Your task to perform on an android device: Search for "alienware aurora" on walmart.com, select the first entry, add it to the cart, then select checkout. Image 0: 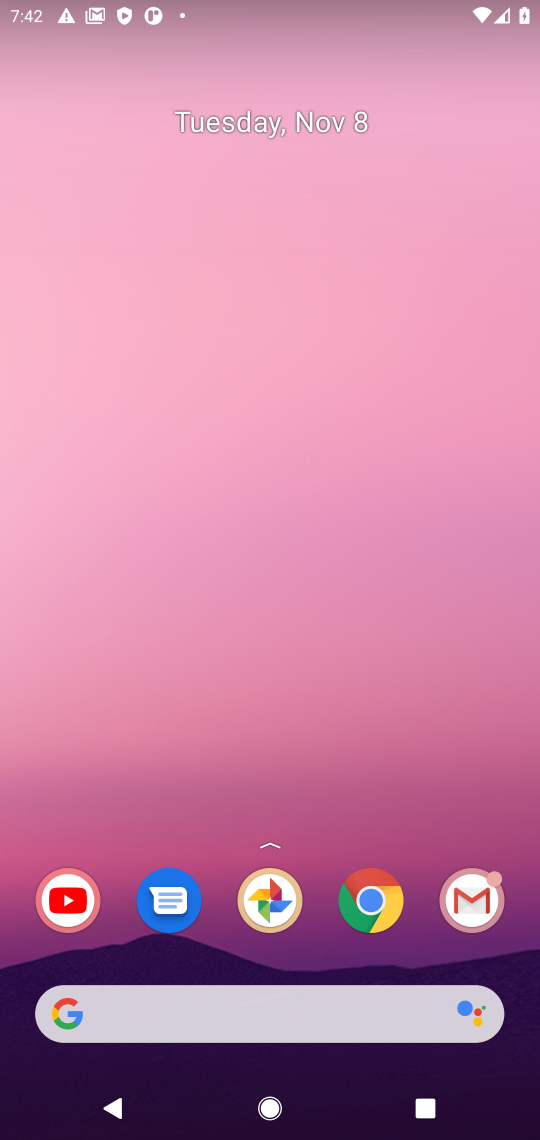
Step 0: click (382, 915)
Your task to perform on an android device: Search for "alienware aurora" on walmart.com, select the first entry, add it to the cart, then select checkout. Image 1: 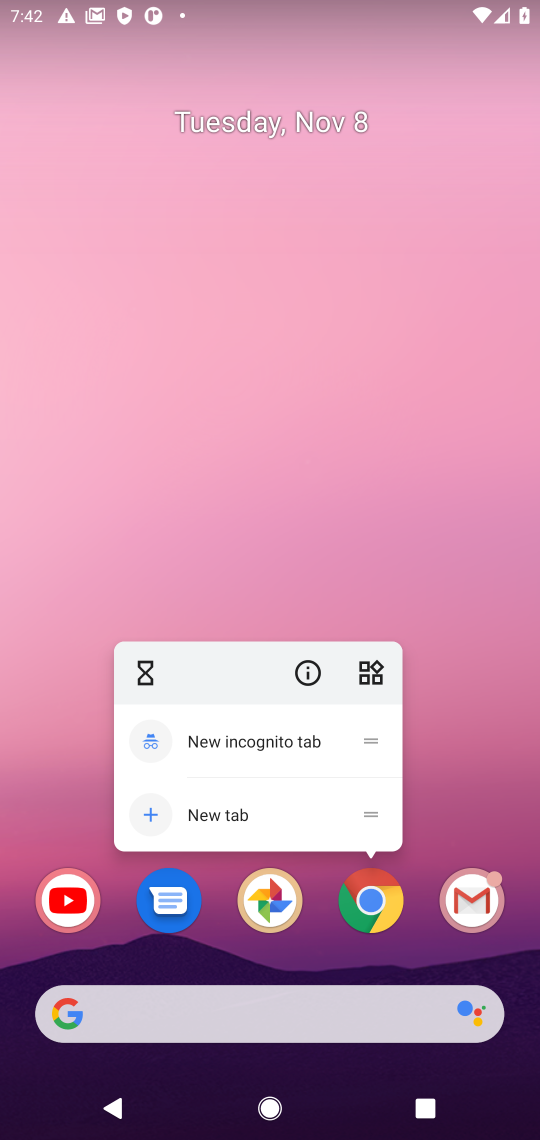
Step 1: click (383, 913)
Your task to perform on an android device: Search for "alienware aurora" on walmart.com, select the first entry, add it to the cart, then select checkout. Image 2: 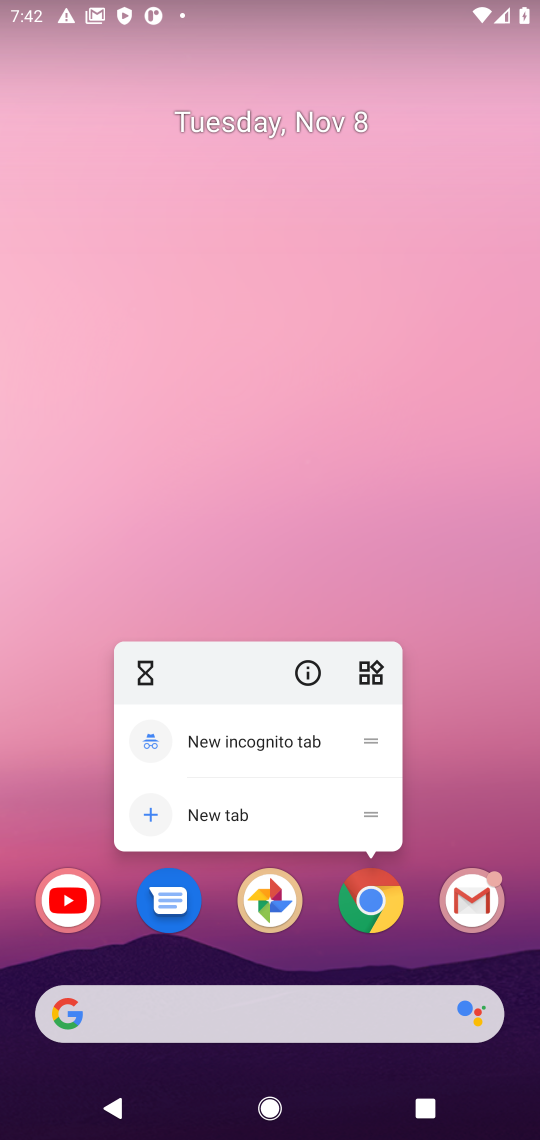
Step 2: click (383, 913)
Your task to perform on an android device: Search for "alienware aurora" on walmart.com, select the first entry, add it to the cart, then select checkout. Image 3: 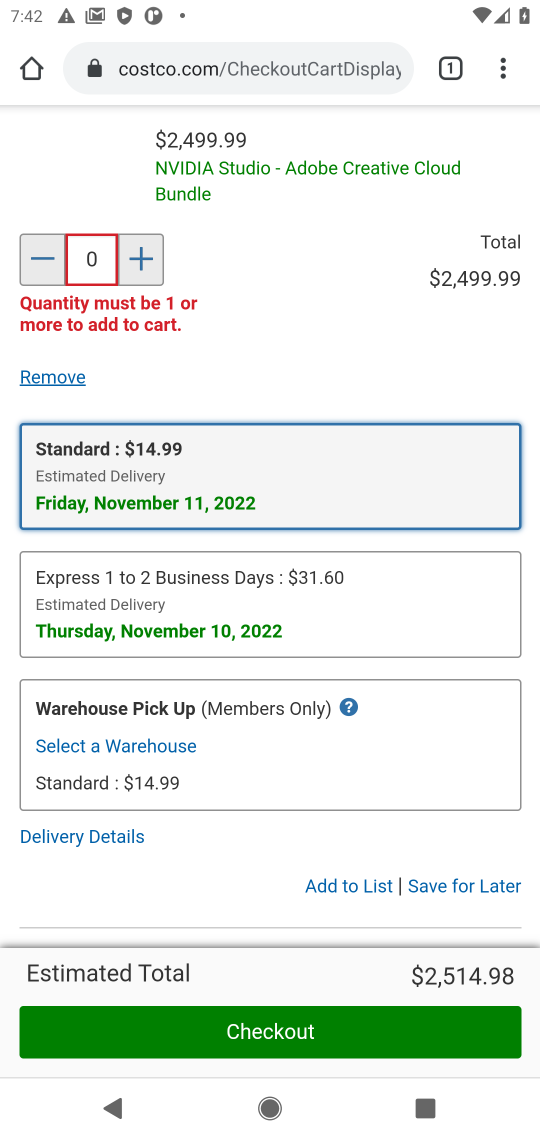
Step 3: click (143, 68)
Your task to perform on an android device: Search for "alienware aurora" on walmart.com, select the first entry, add it to the cart, then select checkout. Image 4: 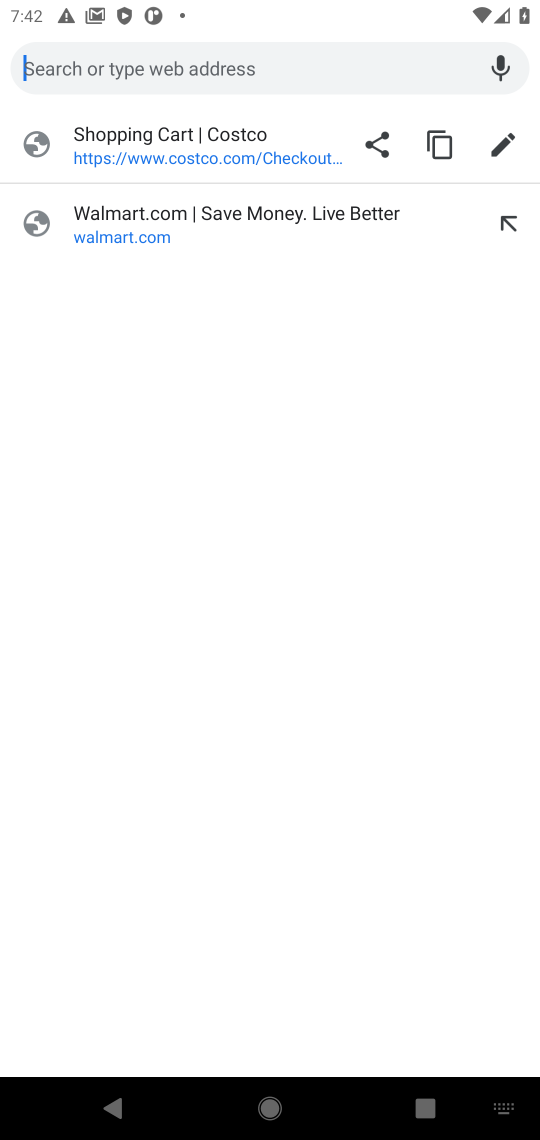
Step 4: type "walmart"
Your task to perform on an android device: Search for "alienware aurora" on walmart.com, select the first entry, add it to the cart, then select checkout. Image 5: 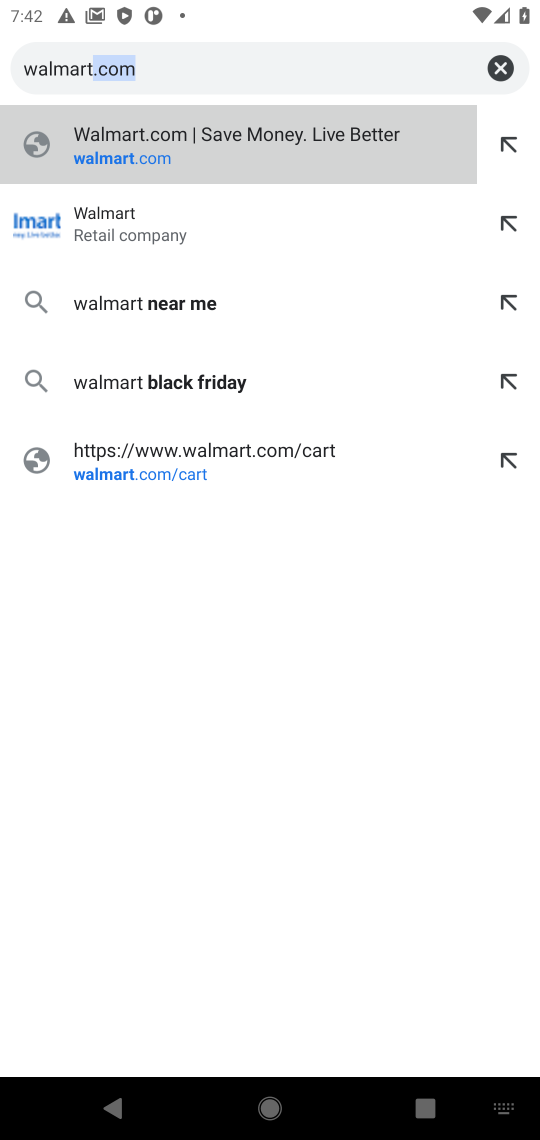
Step 5: type ""
Your task to perform on an android device: Search for "alienware aurora" on walmart.com, select the first entry, add it to the cart, then select checkout. Image 6: 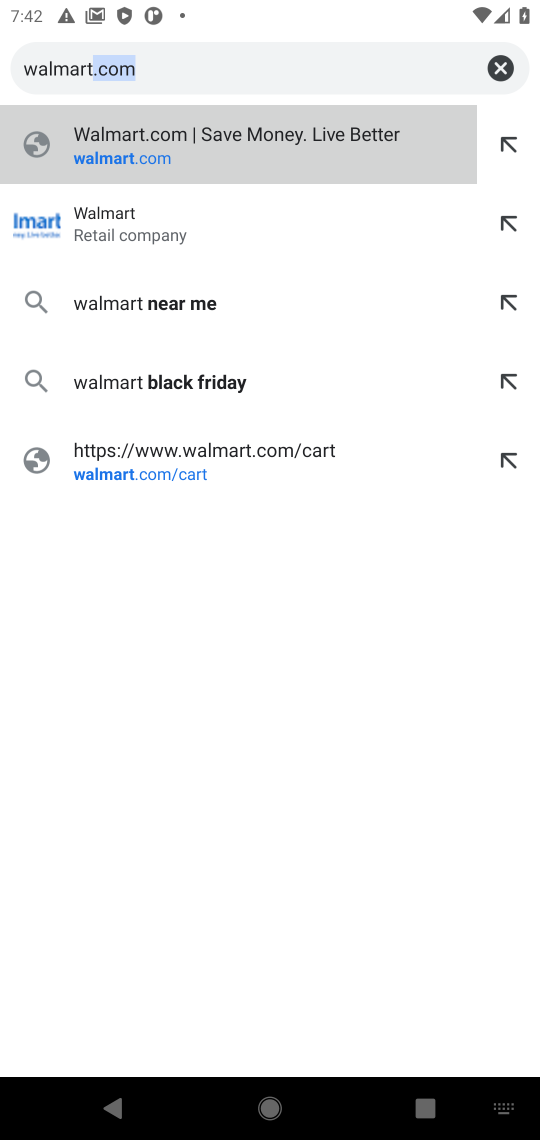
Step 6: click (135, 241)
Your task to perform on an android device: Search for "alienware aurora" on walmart.com, select the first entry, add it to the cart, then select checkout. Image 7: 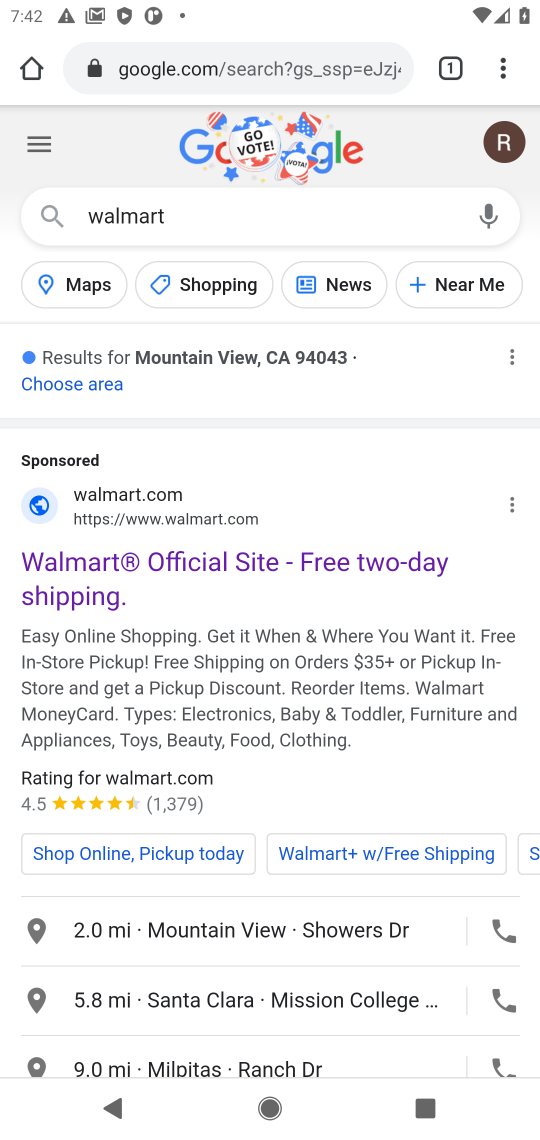
Step 7: drag from (210, 778) to (292, 21)
Your task to perform on an android device: Search for "alienware aurora" on walmart.com, select the first entry, add it to the cart, then select checkout. Image 8: 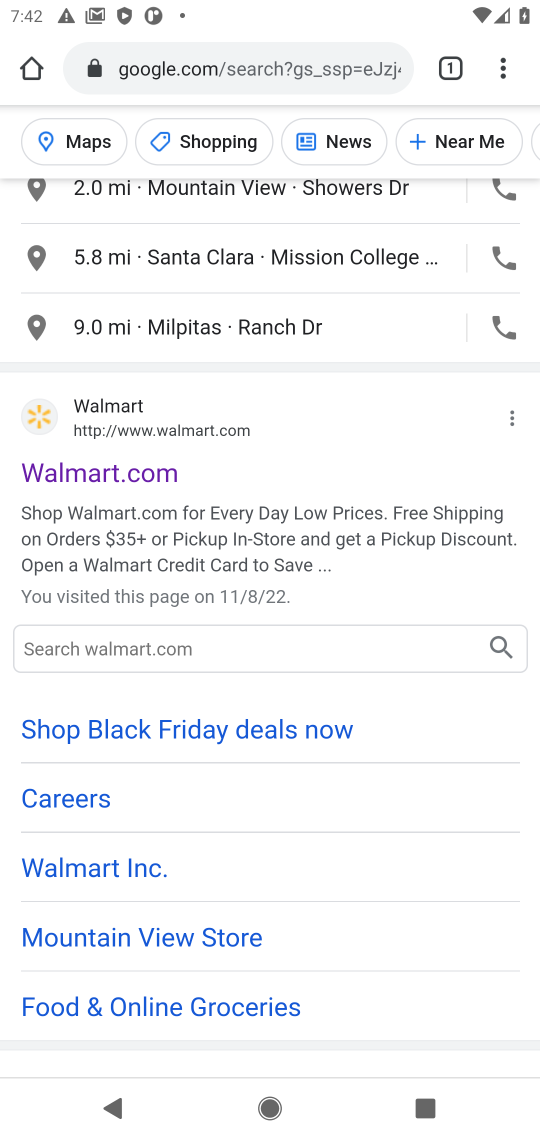
Step 8: click (86, 476)
Your task to perform on an android device: Search for "alienware aurora" on walmart.com, select the first entry, add it to the cart, then select checkout. Image 9: 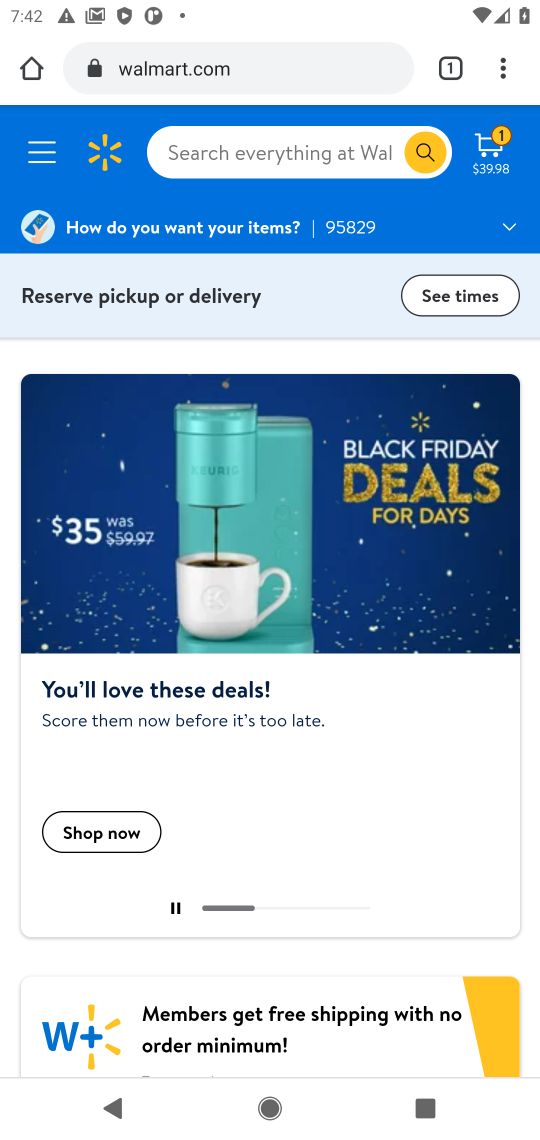
Step 9: click (226, 154)
Your task to perform on an android device: Search for "alienware aurora" on walmart.com, select the first entry, add it to the cart, then select checkout. Image 10: 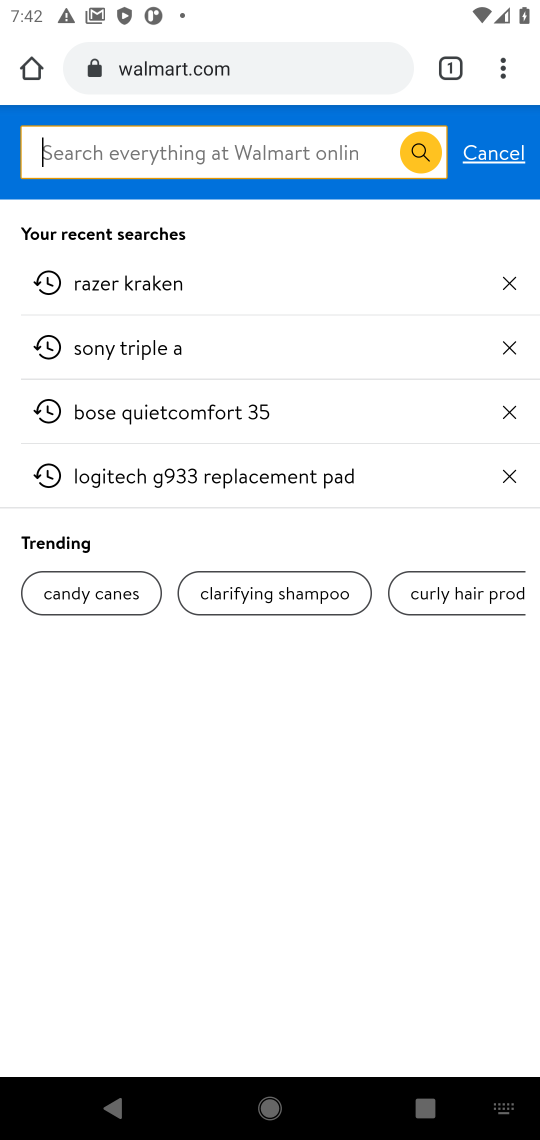
Step 10: type "alienware auror"
Your task to perform on an android device: Search for "alienware aurora" on walmart.com, select the first entry, add it to the cart, then select checkout. Image 11: 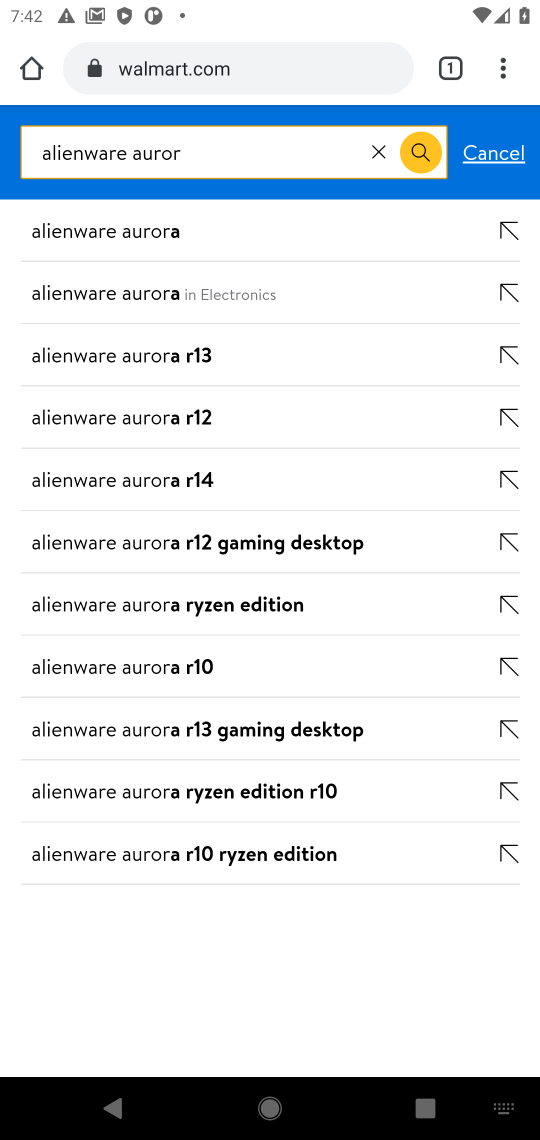
Step 11: type "alien aurora"
Your task to perform on an android device: Search for "alienware aurora" on walmart.com, select the first entry, add it to the cart, then select checkout. Image 12: 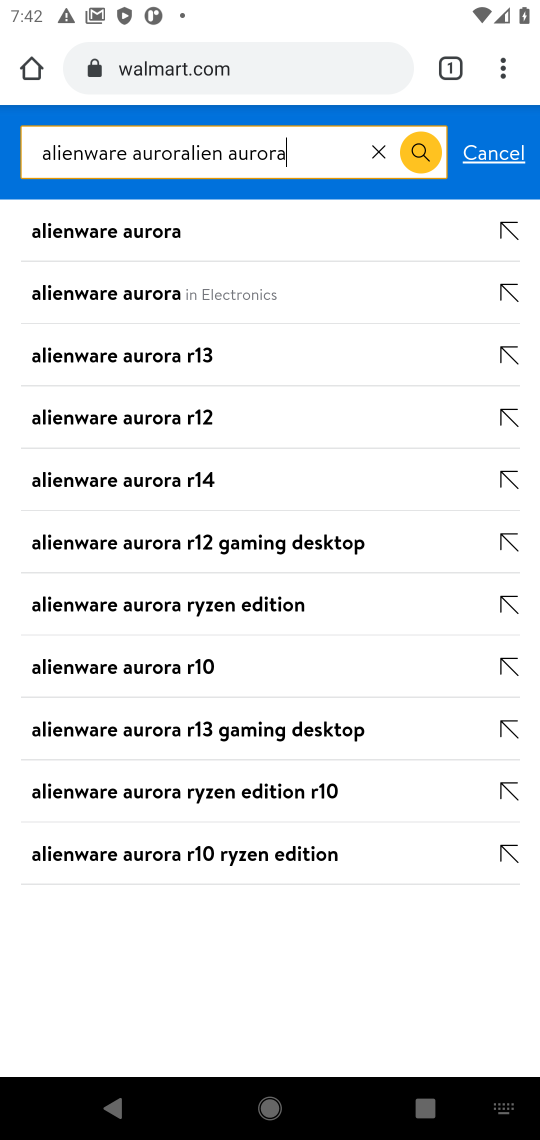
Step 12: type ""
Your task to perform on an android device: Search for "alienware aurora" on walmart.com, select the first entry, add it to the cart, then select checkout. Image 13: 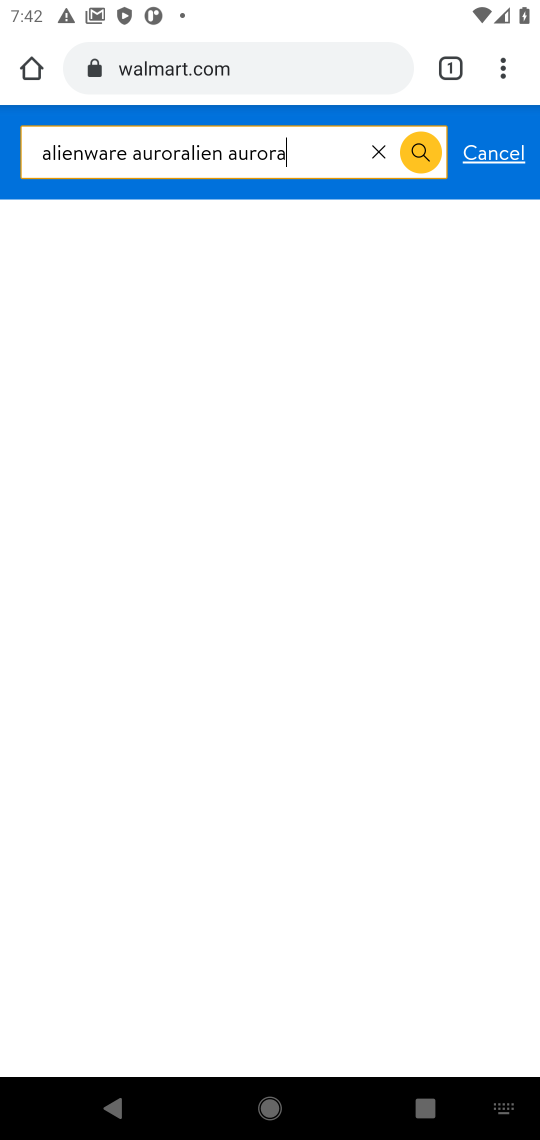
Step 13: click (391, 144)
Your task to perform on an android device: Search for "alienware aurora" on walmart.com, select the first entry, add it to the cart, then select checkout. Image 14: 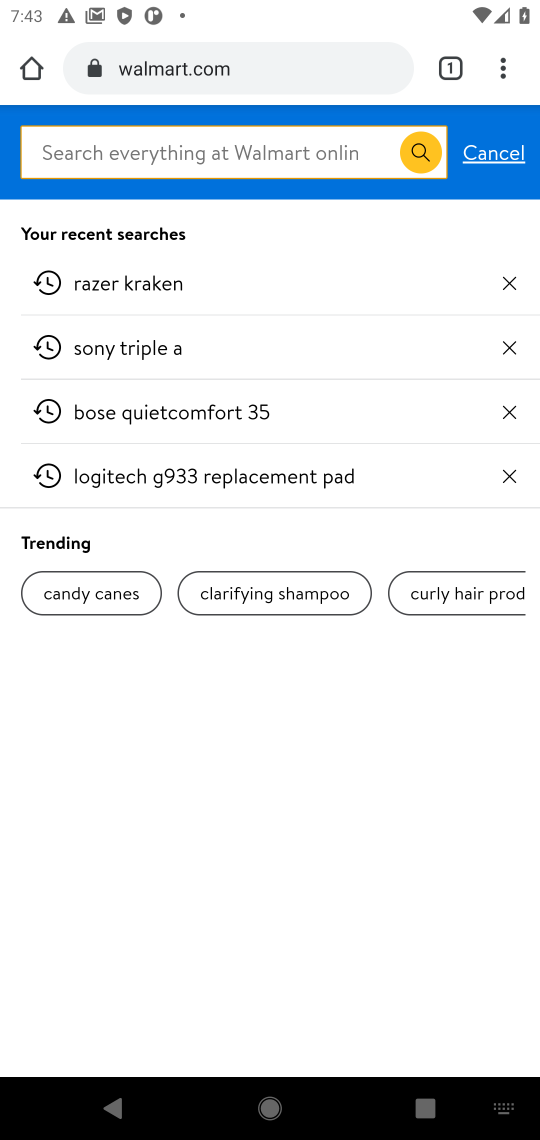
Step 14: type "alienware aurora"
Your task to perform on an android device: Search for "alienware aurora" on walmart.com, select the first entry, add it to the cart, then select checkout. Image 15: 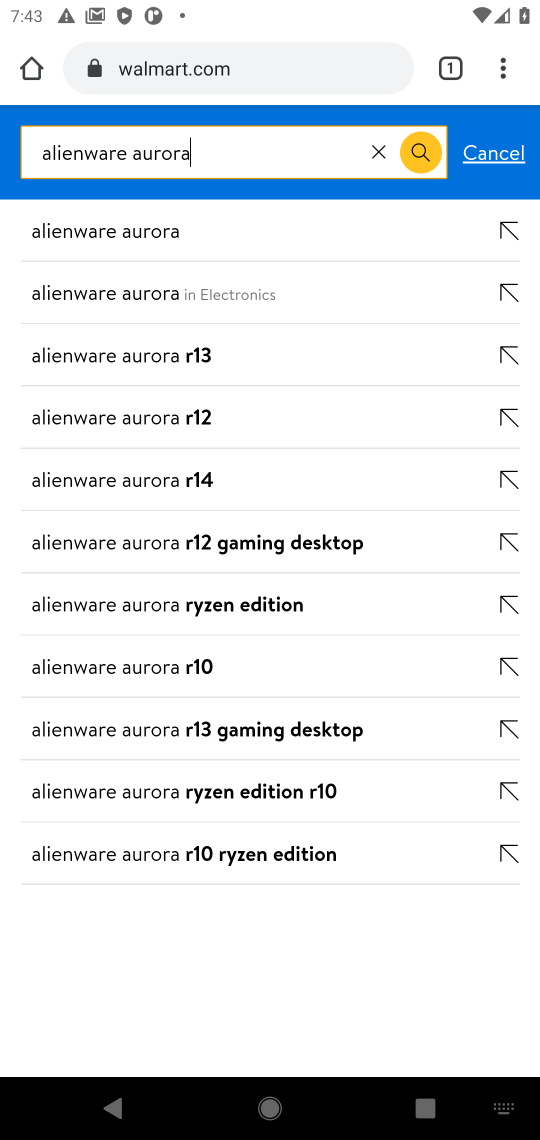
Step 15: click (92, 224)
Your task to perform on an android device: Search for "alienware aurora" on walmart.com, select the first entry, add it to the cart, then select checkout. Image 16: 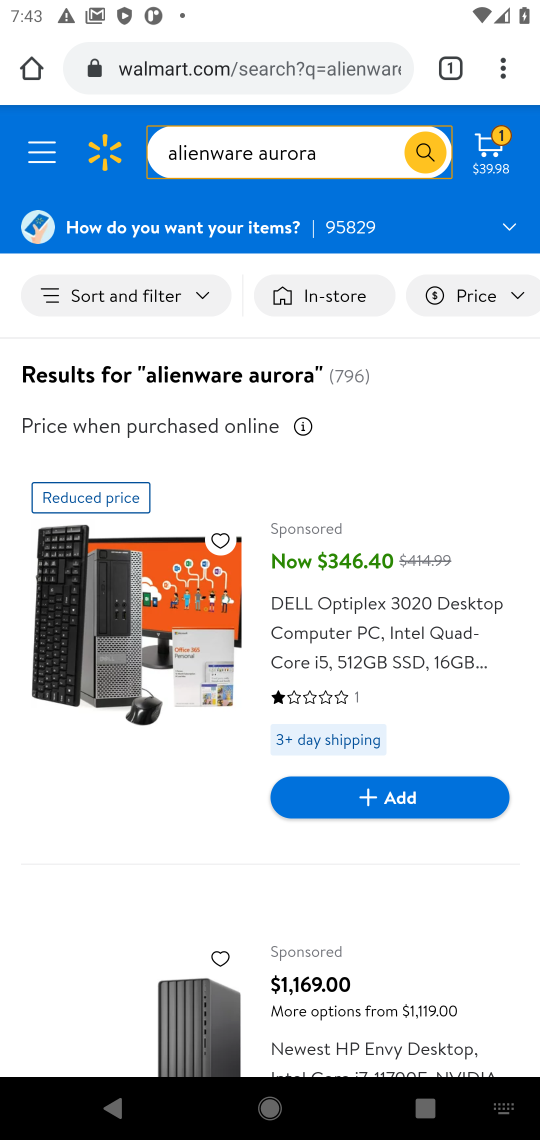
Step 16: drag from (270, 947) to (355, 283)
Your task to perform on an android device: Search for "alienware aurora" on walmart.com, select the first entry, add it to the cart, then select checkout. Image 17: 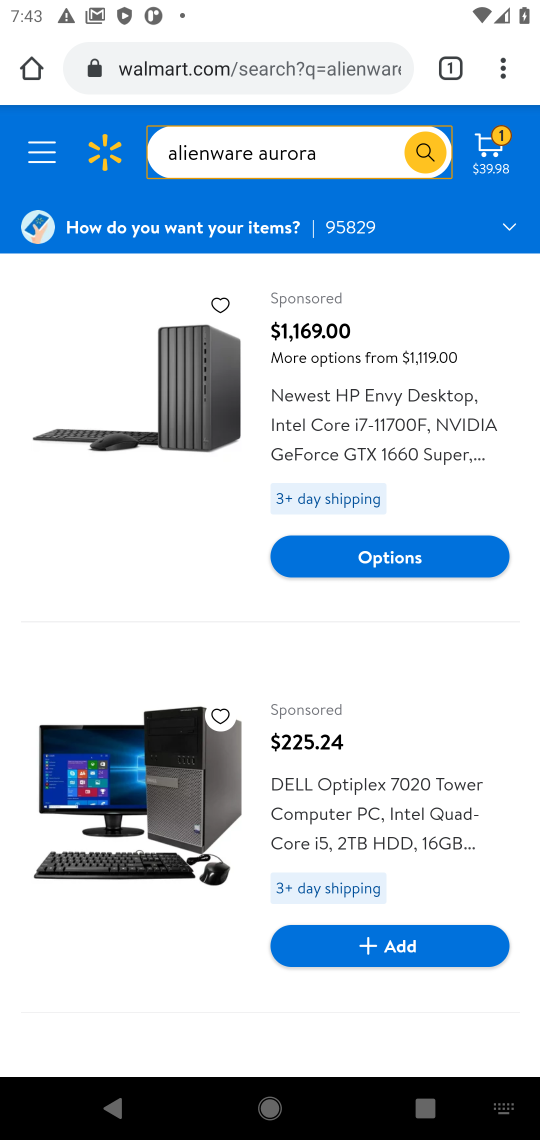
Step 17: click (221, 779)
Your task to perform on an android device: Search for "alienware aurora" on walmart.com, select the first entry, add it to the cart, then select checkout. Image 18: 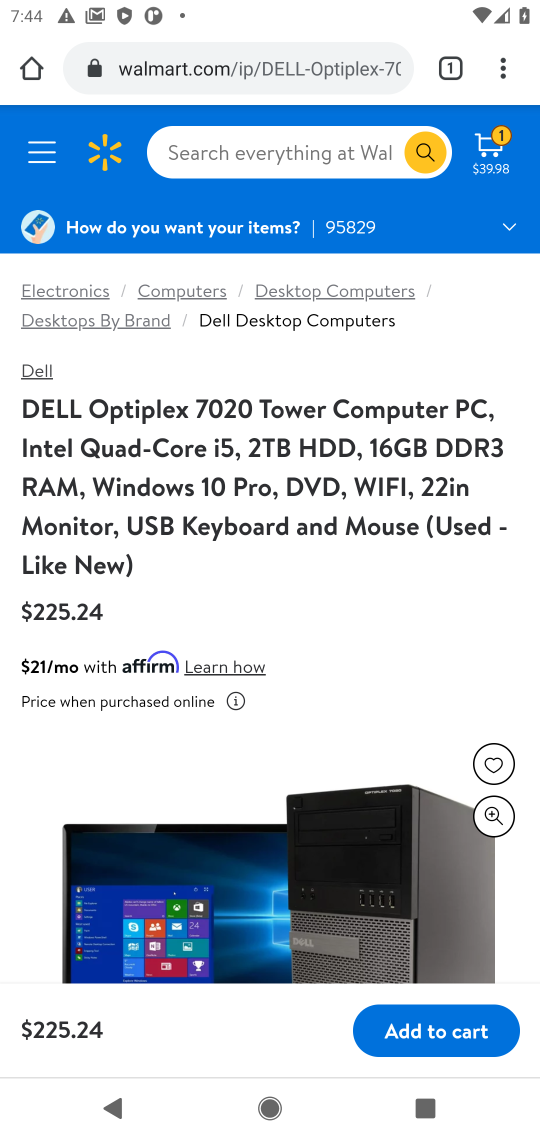
Step 18: drag from (284, 710) to (368, 394)
Your task to perform on an android device: Search for "alienware aurora" on walmart.com, select the first entry, add it to the cart, then select checkout. Image 19: 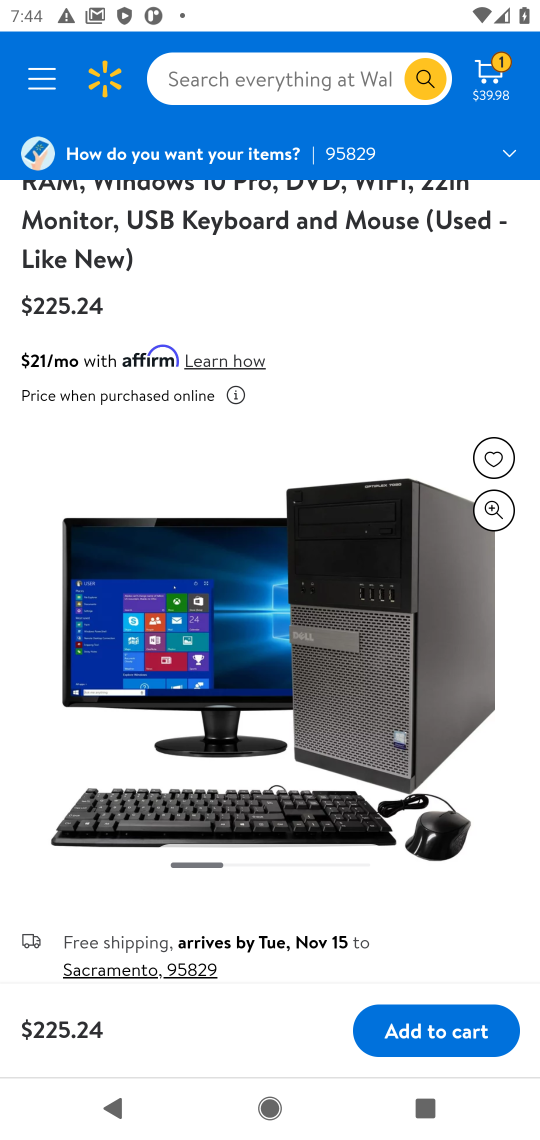
Step 19: click (465, 1032)
Your task to perform on an android device: Search for "alienware aurora" on walmart.com, select the first entry, add it to the cart, then select checkout. Image 20: 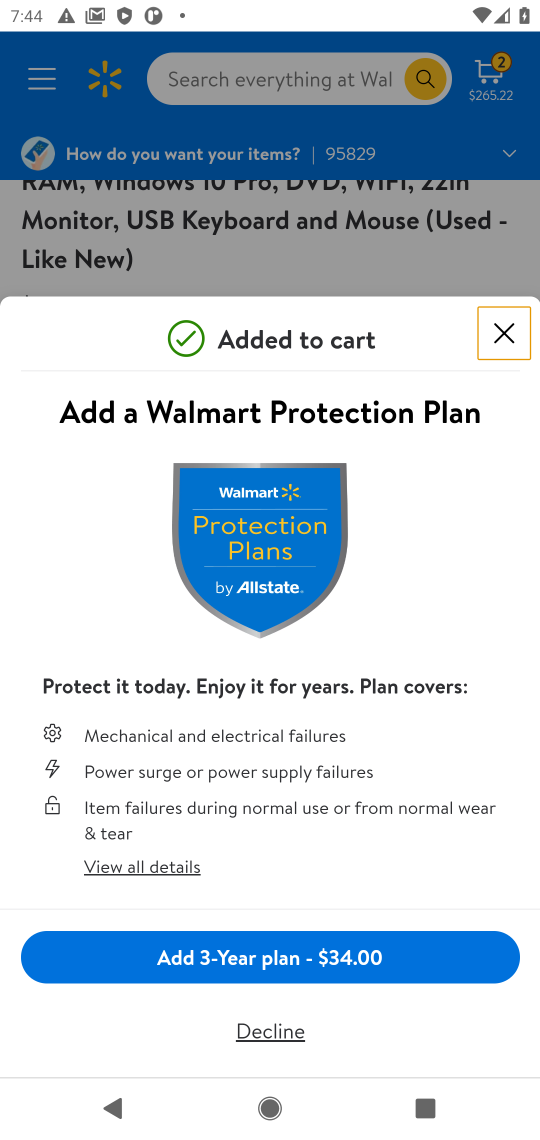
Step 20: click (510, 333)
Your task to perform on an android device: Search for "alienware aurora" on walmart.com, select the first entry, add it to the cart, then select checkout. Image 21: 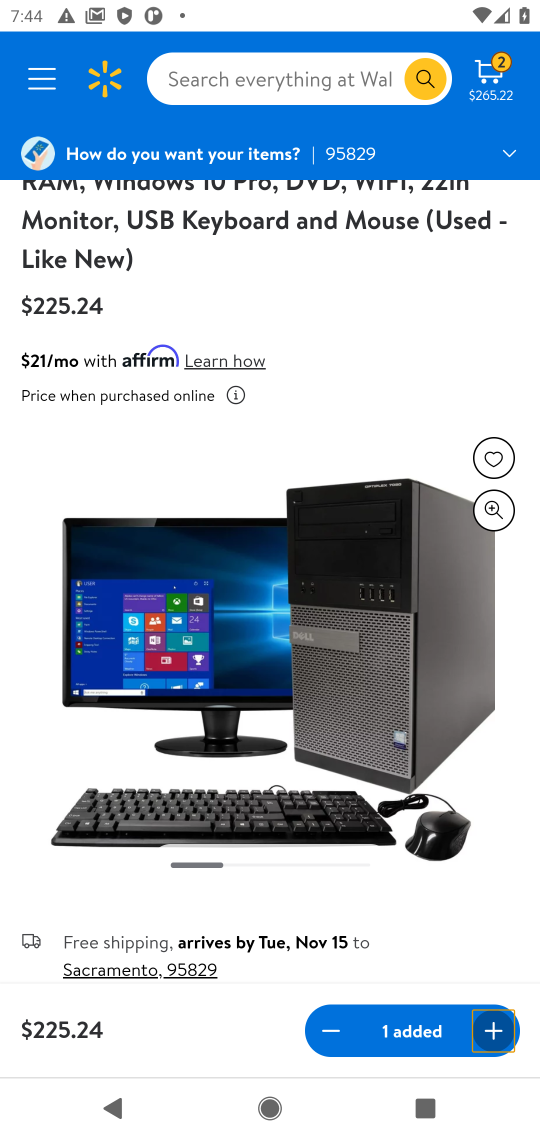
Step 21: drag from (244, 960) to (265, 634)
Your task to perform on an android device: Search for "alienware aurora" on walmart.com, select the first entry, add it to the cart, then select checkout. Image 22: 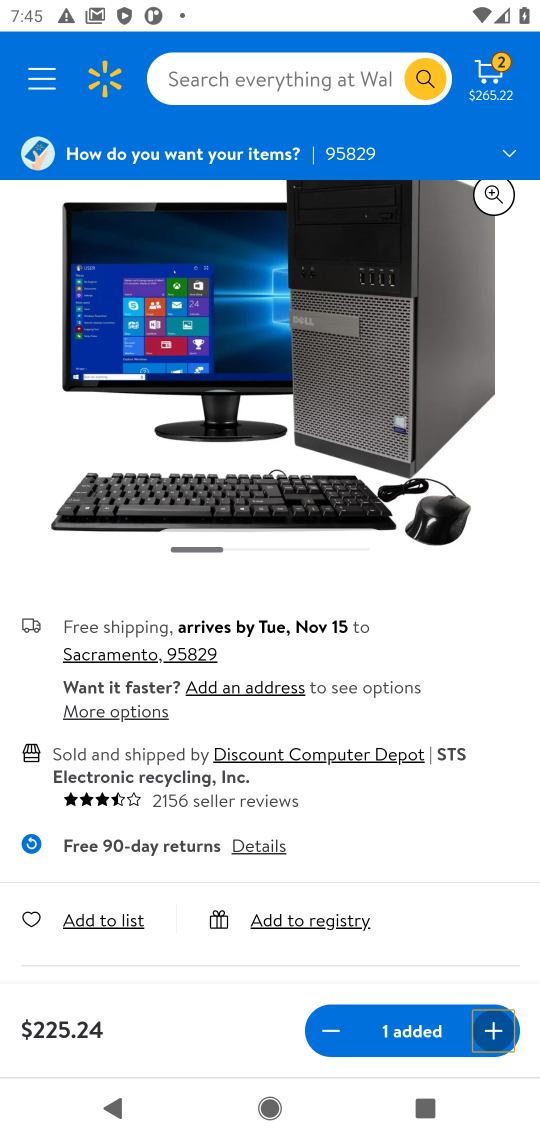
Step 22: drag from (467, 915) to (415, 273)
Your task to perform on an android device: Search for "alienware aurora" on walmart.com, select the first entry, add it to the cart, then select checkout. Image 23: 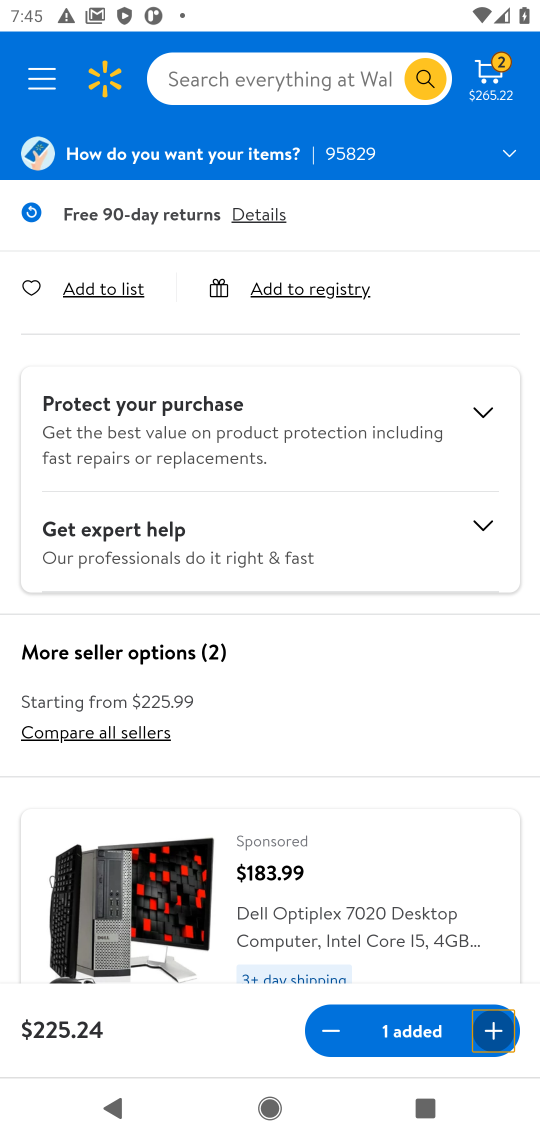
Step 23: drag from (261, 887) to (251, 591)
Your task to perform on an android device: Search for "alienware aurora" on walmart.com, select the first entry, add it to the cart, then select checkout. Image 24: 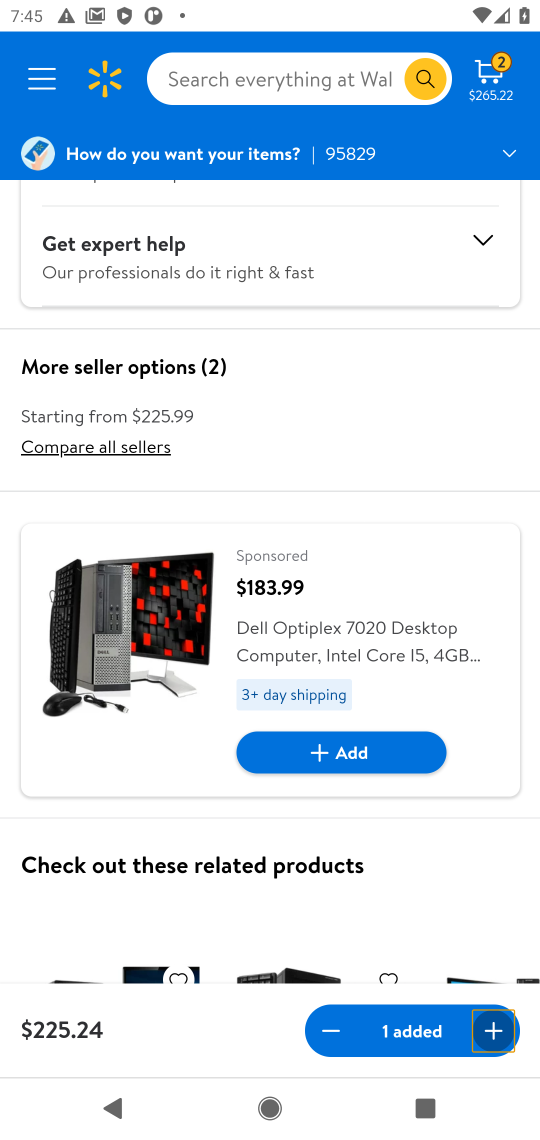
Step 24: drag from (364, 333) to (417, 832)
Your task to perform on an android device: Search for "alienware aurora" on walmart.com, select the first entry, add it to the cart, then select checkout. Image 25: 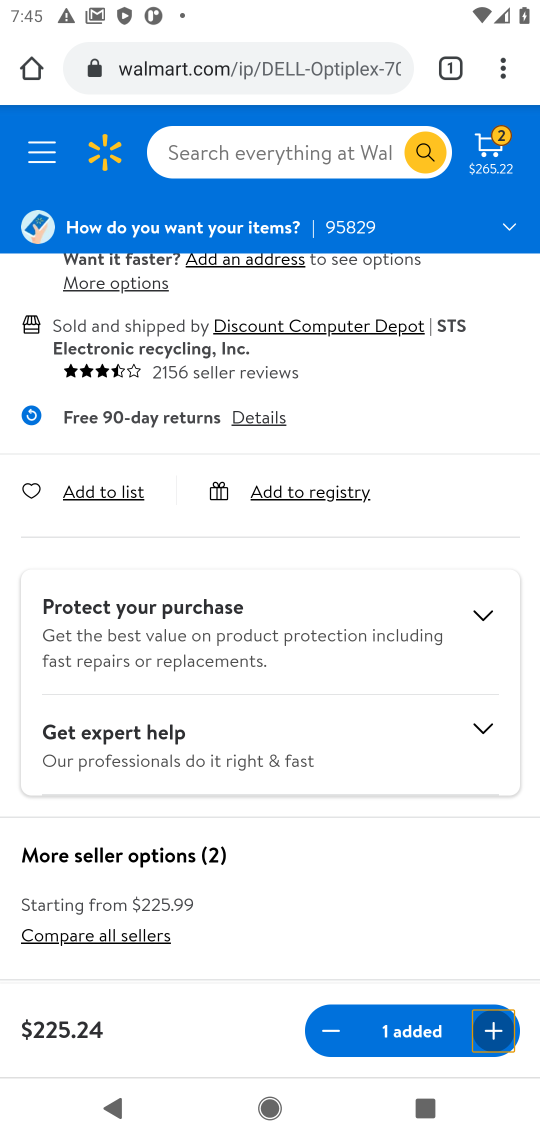
Step 25: drag from (239, 504) to (234, 1025)
Your task to perform on an android device: Search for "alienware aurora" on walmart.com, select the first entry, add it to the cart, then select checkout. Image 26: 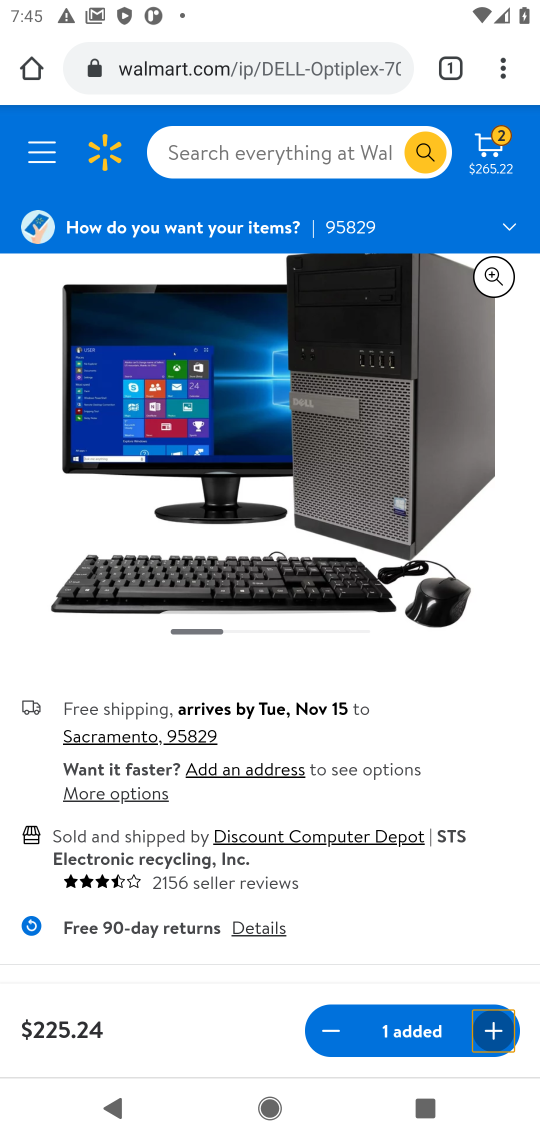
Step 26: click (500, 142)
Your task to perform on an android device: Search for "alienware aurora" on walmart.com, select the first entry, add it to the cart, then select checkout. Image 27: 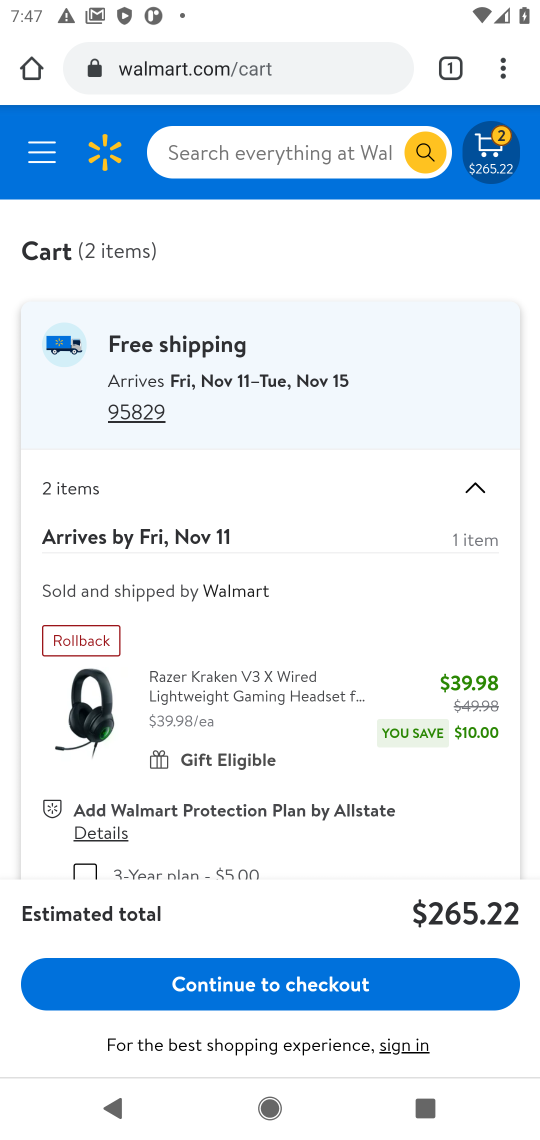
Step 27: click (230, 146)
Your task to perform on an android device: Search for "alienware aurora" on walmart.com, select the first entry, add it to the cart, then select checkout. Image 28: 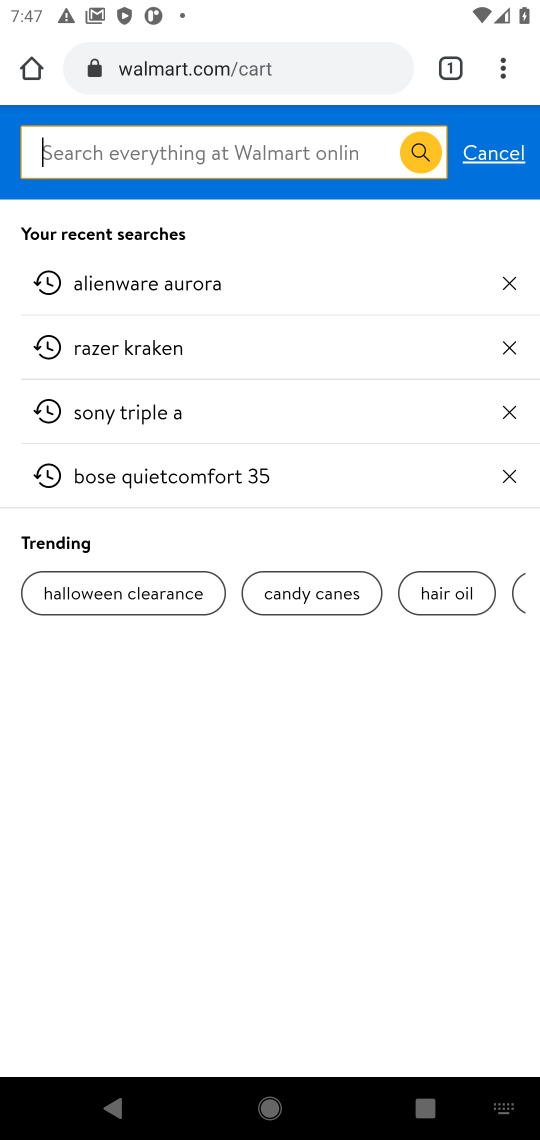
Step 28: type "alienware aurora"
Your task to perform on an android device: Search for "alienware aurora" on walmart.com, select the first entry, add it to the cart, then select checkout. Image 29: 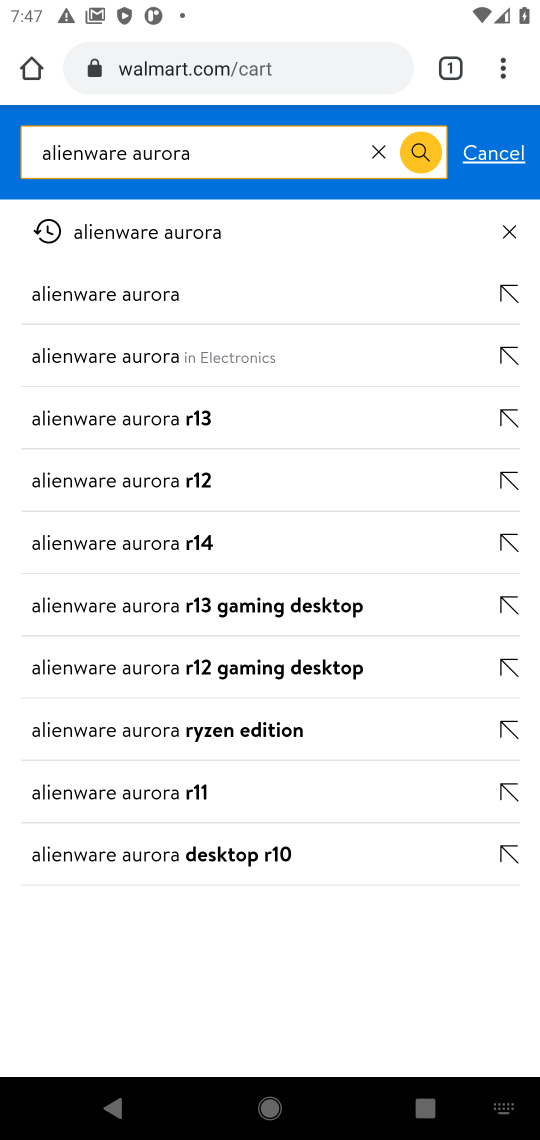
Step 29: click (141, 363)
Your task to perform on an android device: Search for "alienware aurora" on walmart.com, select the first entry, add it to the cart, then select checkout. Image 30: 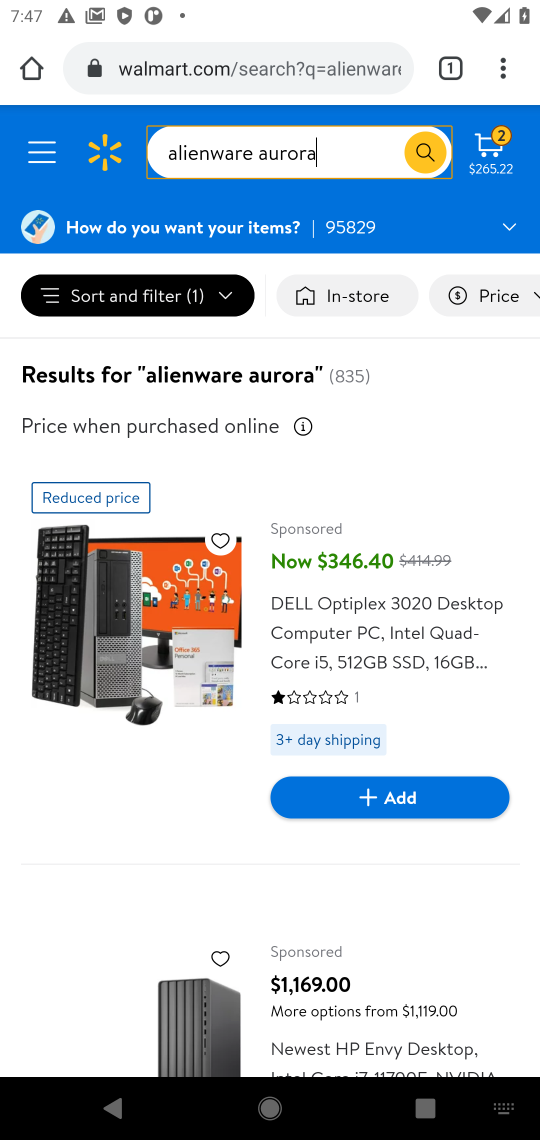
Step 30: drag from (222, 809) to (263, 486)
Your task to perform on an android device: Search for "alienware aurora" on walmart.com, select the first entry, add it to the cart, then select checkout. Image 31: 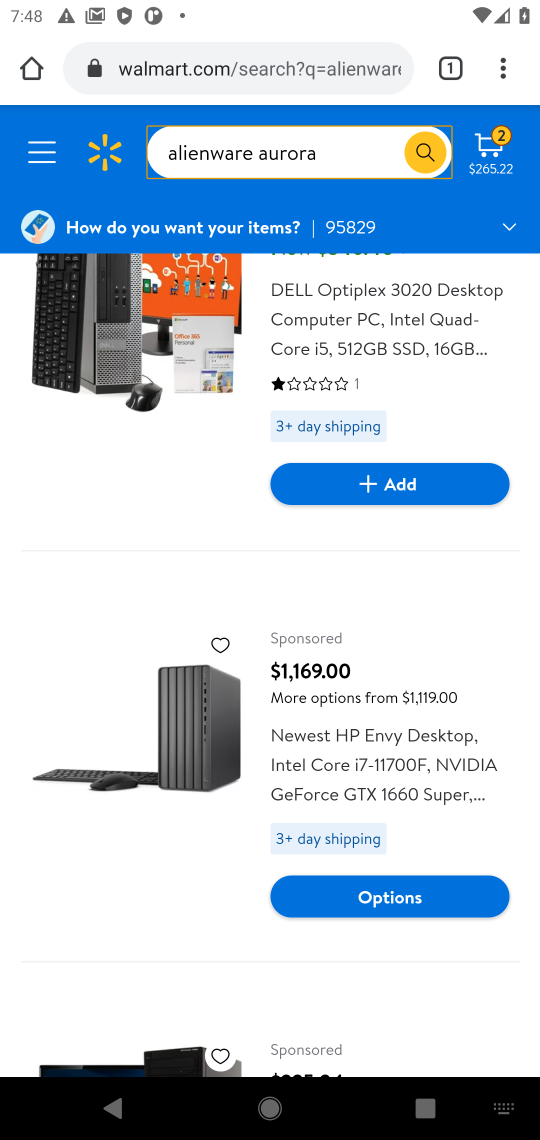
Step 31: drag from (201, 791) to (185, 485)
Your task to perform on an android device: Search for "alienware aurora" on walmart.com, select the first entry, add it to the cart, then select checkout. Image 32: 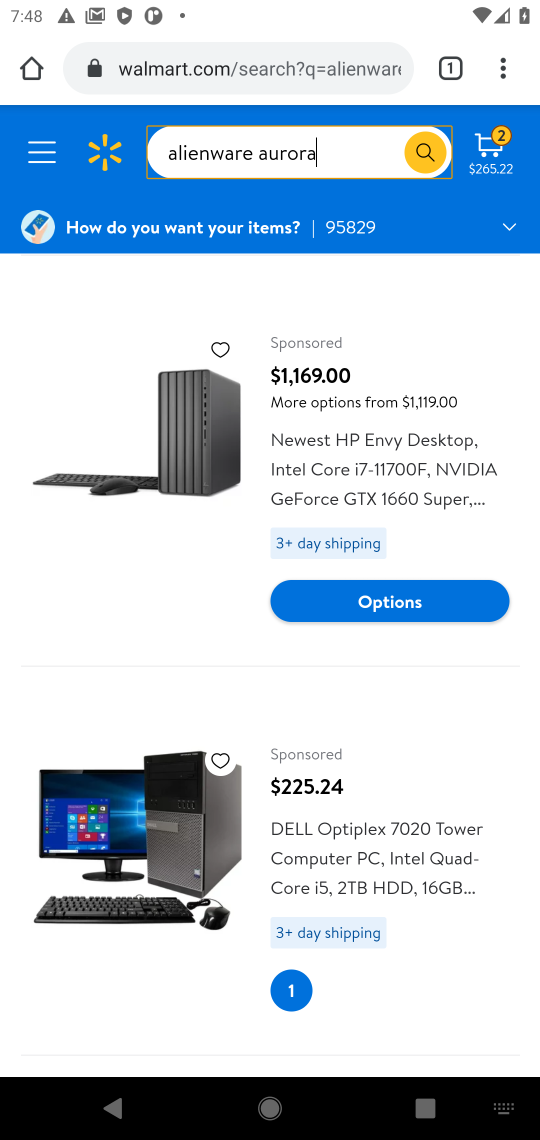
Step 32: click (301, 829)
Your task to perform on an android device: Search for "alienware aurora" on walmart.com, select the first entry, add it to the cart, then select checkout. Image 33: 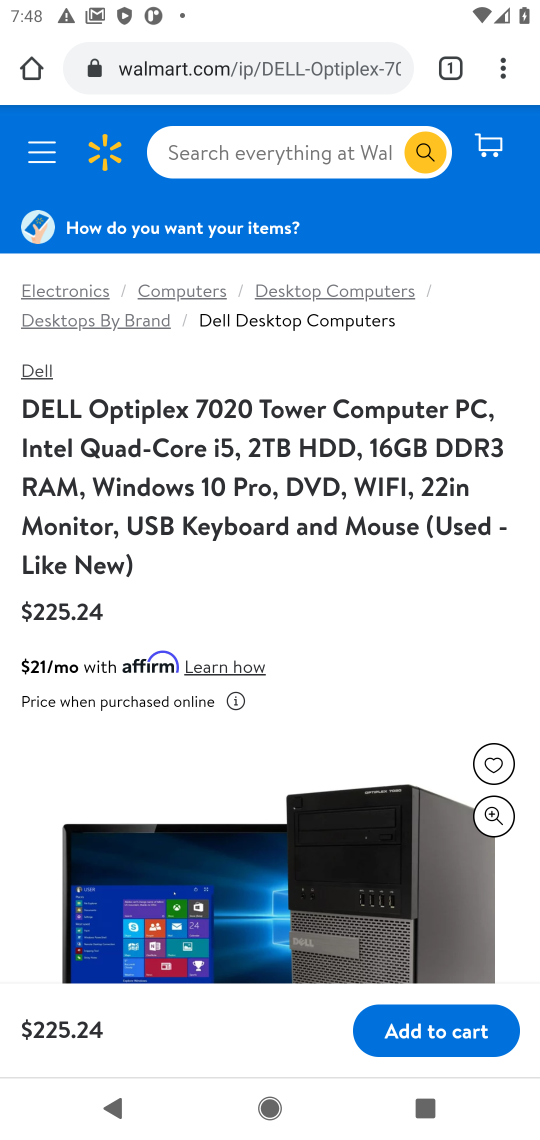
Step 33: task complete